Your task to perform on an android device: Search for pizza restaurants on Maps Image 0: 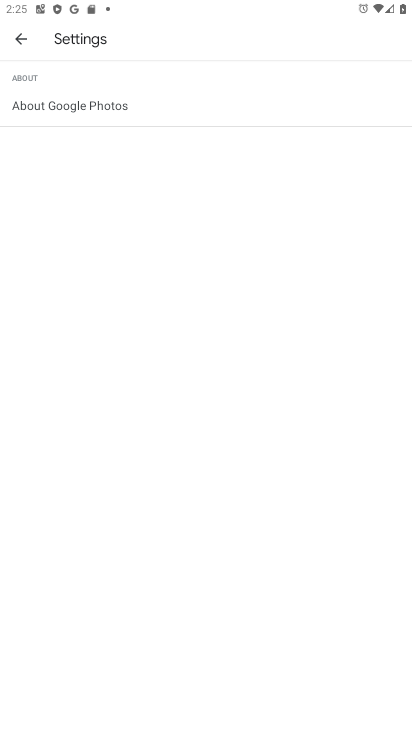
Step 0: press home button
Your task to perform on an android device: Search for pizza restaurants on Maps Image 1: 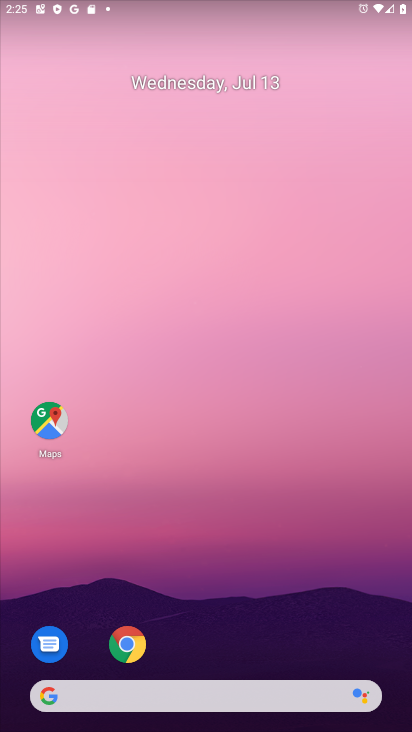
Step 1: drag from (191, 674) to (162, 76)
Your task to perform on an android device: Search for pizza restaurants on Maps Image 2: 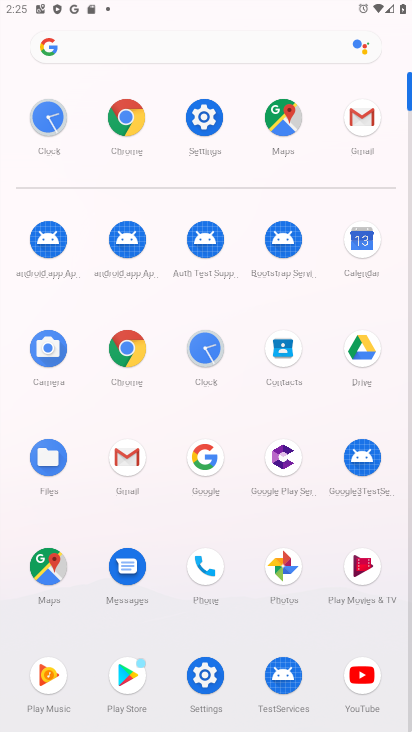
Step 2: click (54, 570)
Your task to perform on an android device: Search for pizza restaurants on Maps Image 3: 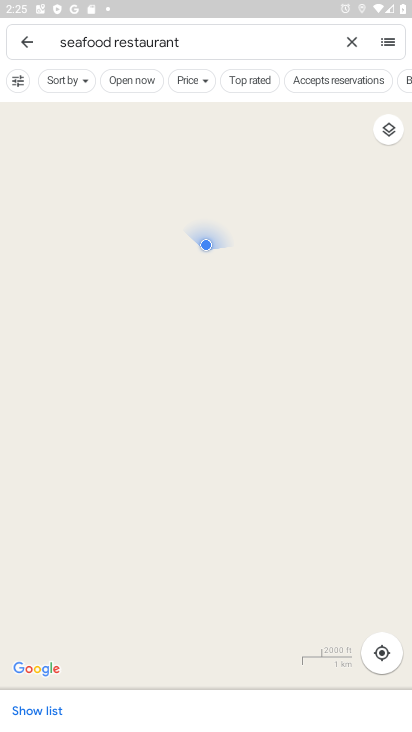
Step 3: click (350, 34)
Your task to perform on an android device: Search for pizza restaurants on Maps Image 4: 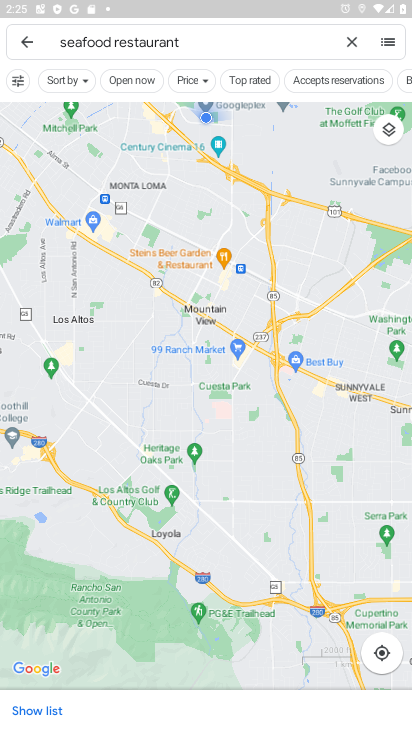
Step 4: click (345, 46)
Your task to perform on an android device: Search for pizza restaurants on Maps Image 5: 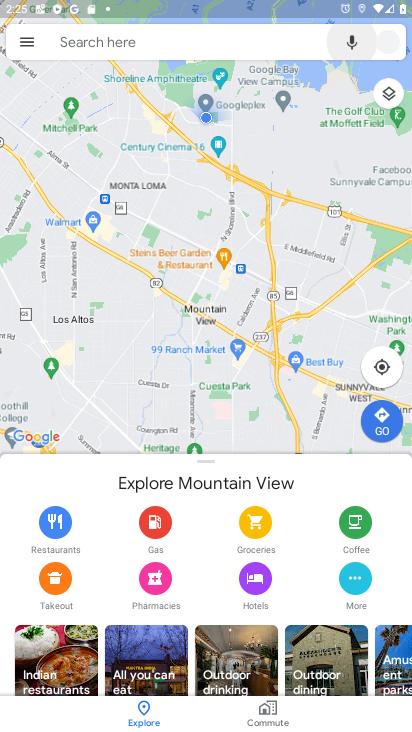
Step 5: click (229, 48)
Your task to perform on an android device: Search for pizza restaurants on Maps Image 6: 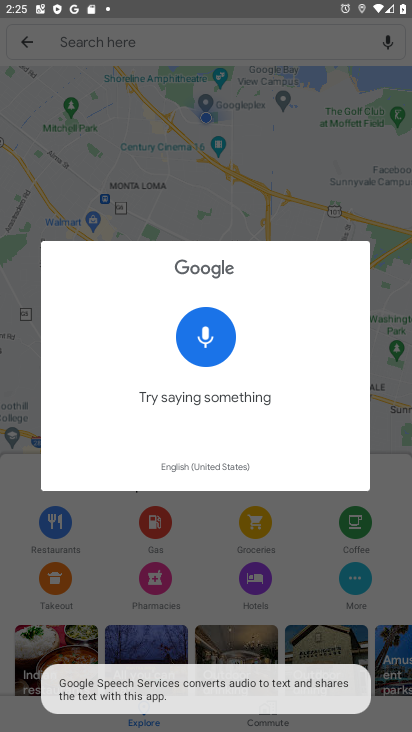
Step 6: drag from (230, 46) to (166, 46)
Your task to perform on an android device: Search for pizza restaurants on Maps Image 7: 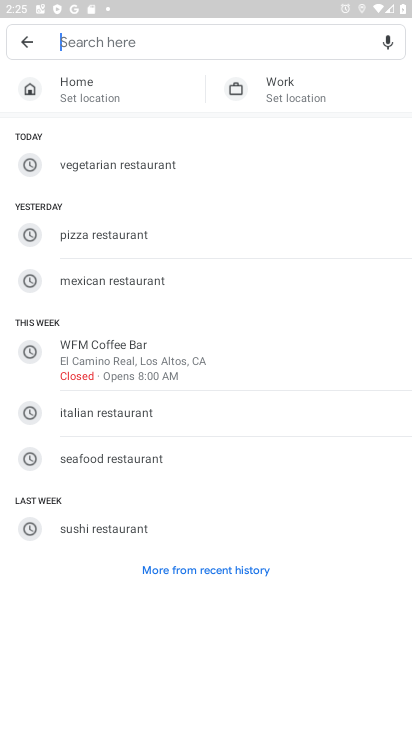
Step 7: click (143, 235)
Your task to perform on an android device: Search for pizza restaurants on Maps Image 8: 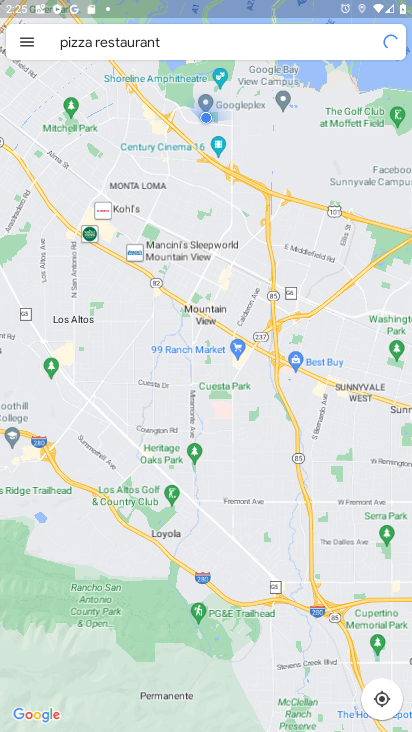
Step 8: task complete